Your task to perform on an android device: Is it going to rain today? Image 0: 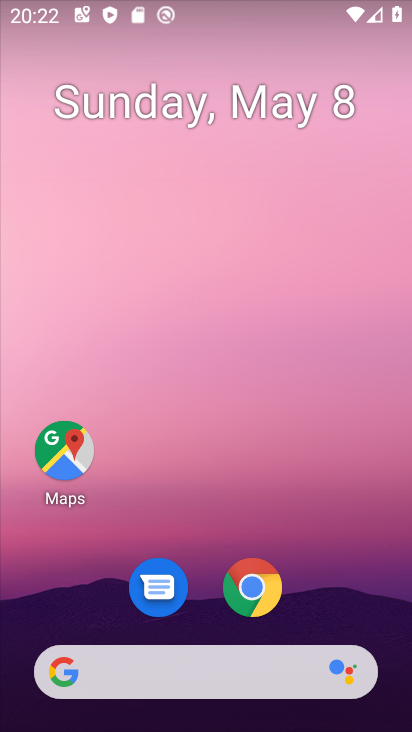
Step 0: drag from (228, 500) to (179, 46)
Your task to perform on an android device: Is it going to rain today? Image 1: 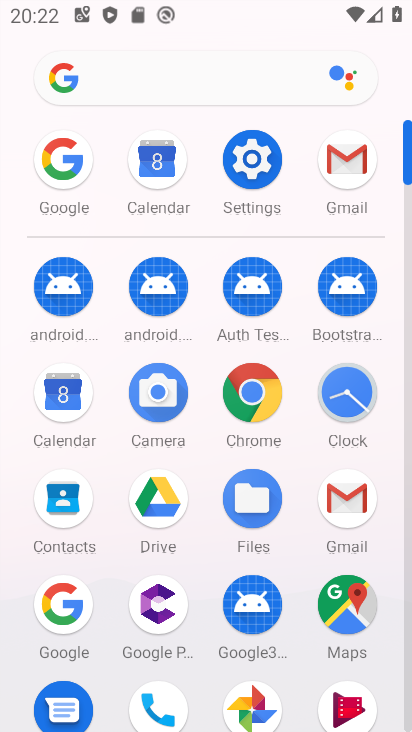
Step 1: click (61, 161)
Your task to perform on an android device: Is it going to rain today? Image 2: 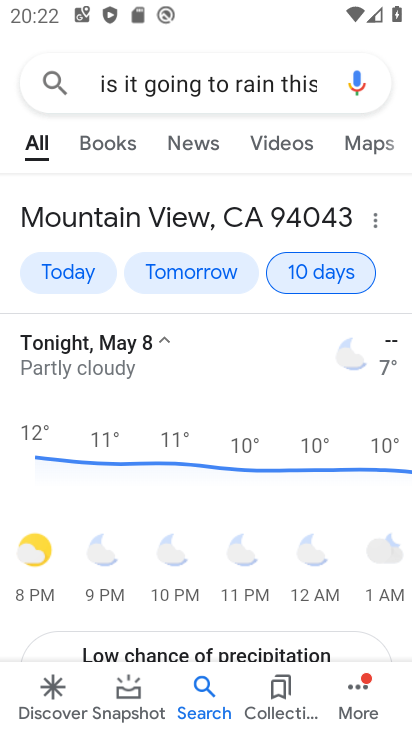
Step 2: click (76, 281)
Your task to perform on an android device: Is it going to rain today? Image 3: 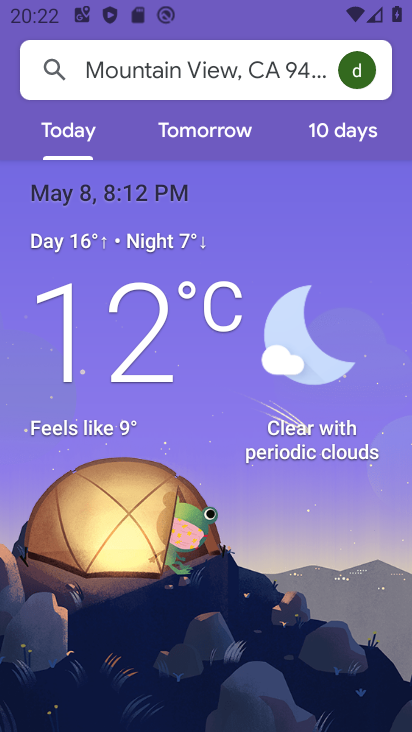
Step 3: task complete